Your task to perform on an android device: turn off location history Image 0: 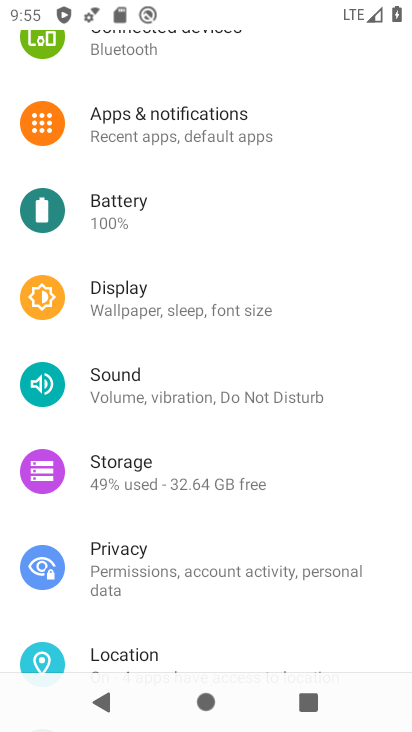
Step 0: drag from (182, 614) to (197, 287)
Your task to perform on an android device: turn off location history Image 1: 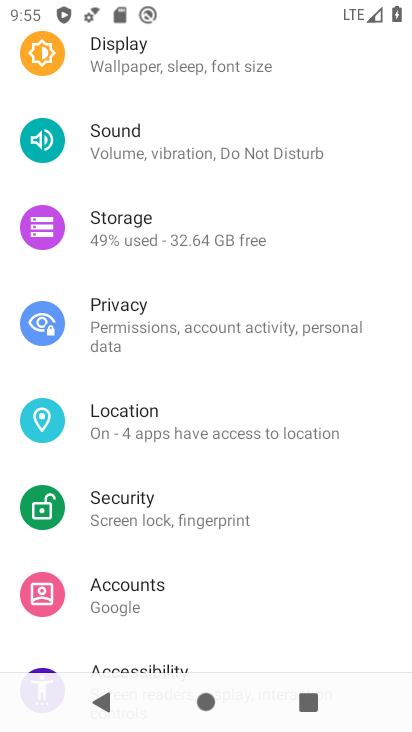
Step 1: click (161, 435)
Your task to perform on an android device: turn off location history Image 2: 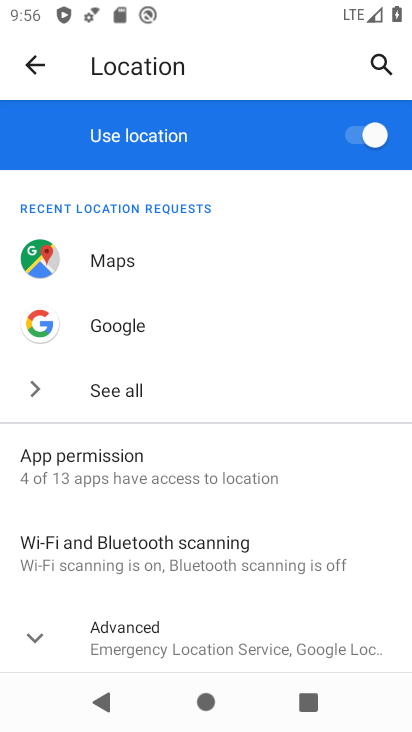
Step 2: click (155, 635)
Your task to perform on an android device: turn off location history Image 3: 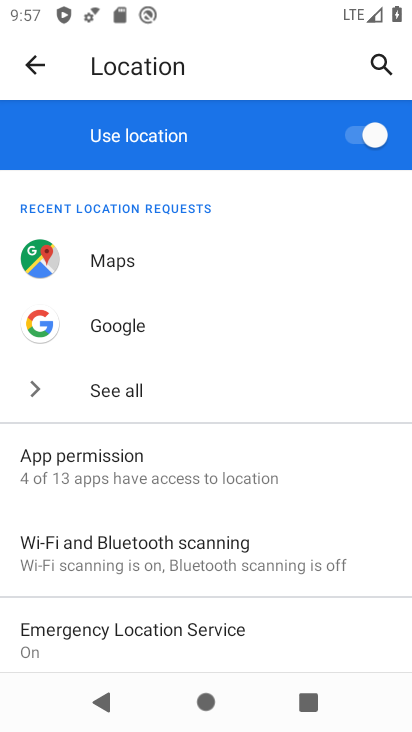
Step 3: drag from (189, 561) to (240, 244)
Your task to perform on an android device: turn off location history Image 4: 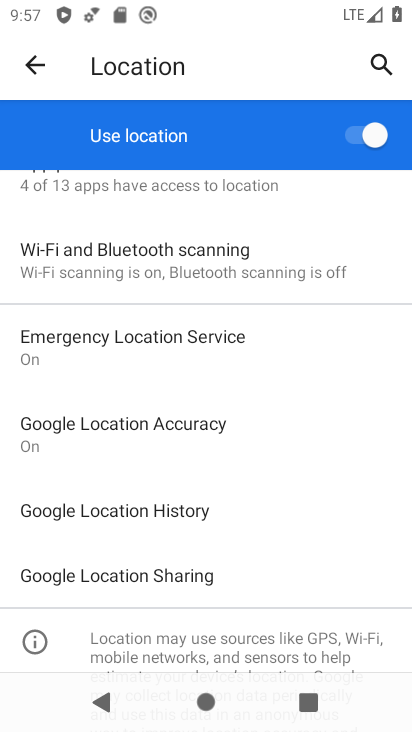
Step 4: click (126, 509)
Your task to perform on an android device: turn off location history Image 5: 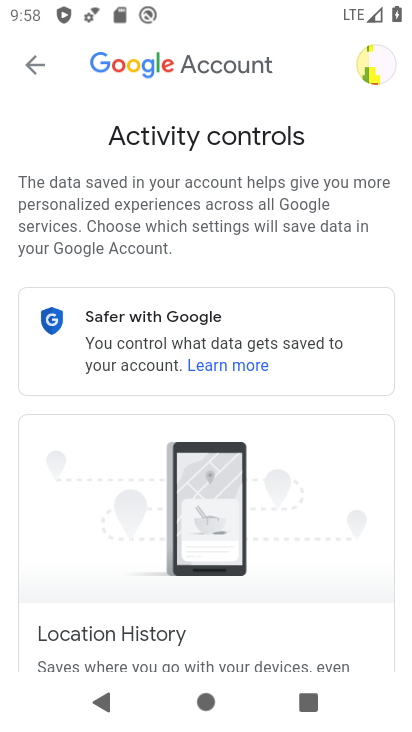
Step 5: task complete